Your task to perform on an android device: Go to network settings Image 0: 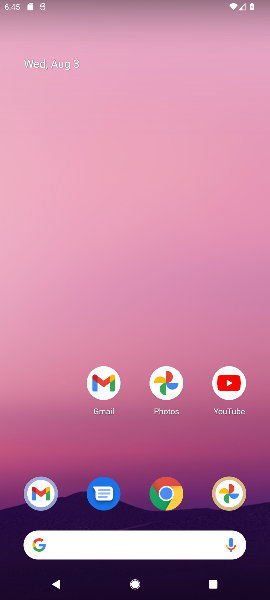
Step 0: drag from (148, 389) to (164, 132)
Your task to perform on an android device: Go to network settings Image 1: 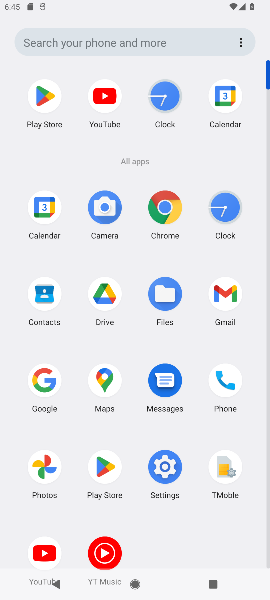
Step 1: click (170, 469)
Your task to perform on an android device: Go to network settings Image 2: 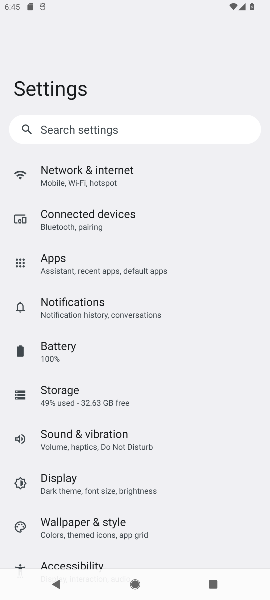
Step 2: click (113, 181)
Your task to perform on an android device: Go to network settings Image 3: 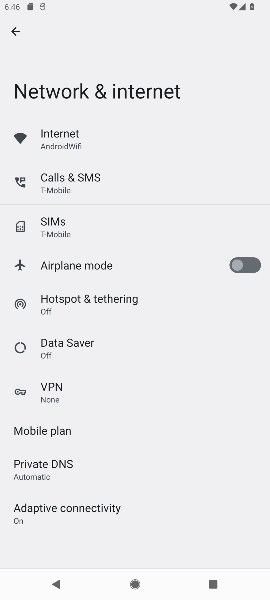
Step 3: task complete